Your task to perform on an android device: Go to Yahoo.com Image 0: 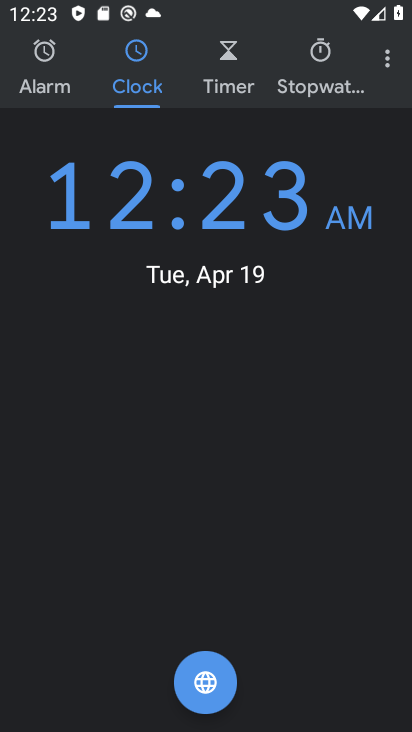
Step 0: press home button
Your task to perform on an android device: Go to Yahoo.com Image 1: 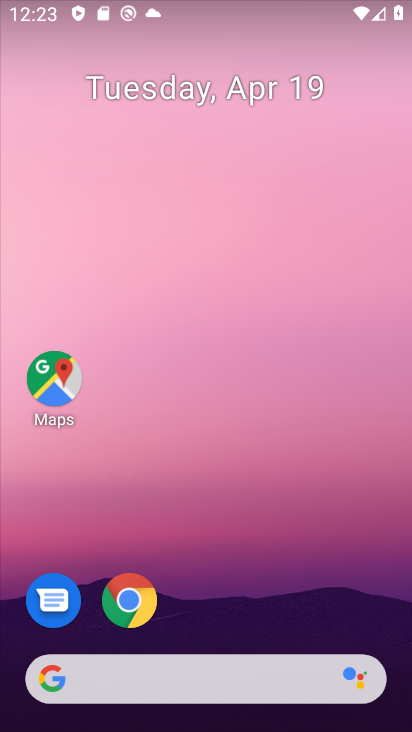
Step 1: click (141, 619)
Your task to perform on an android device: Go to Yahoo.com Image 2: 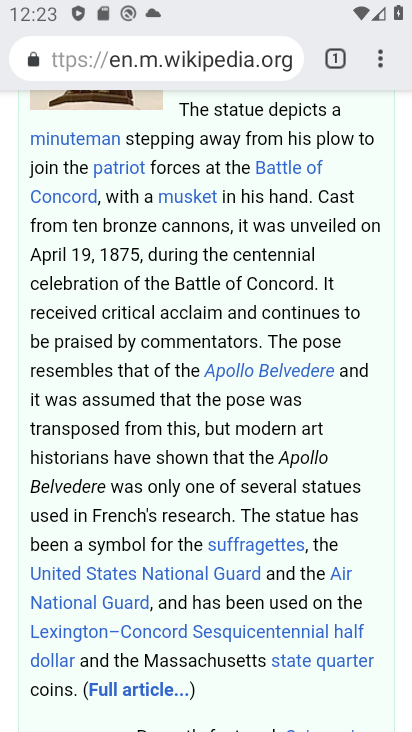
Step 2: click (324, 64)
Your task to perform on an android device: Go to Yahoo.com Image 3: 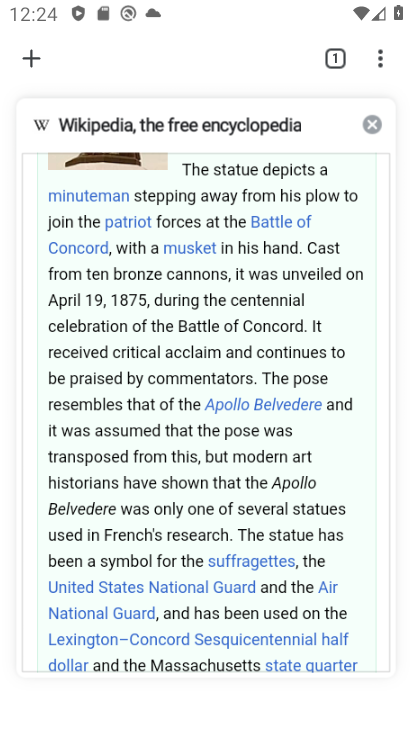
Step 3: click (22, 60)
Your task to perform on an android device: Go to Yahoo.com Image 4: 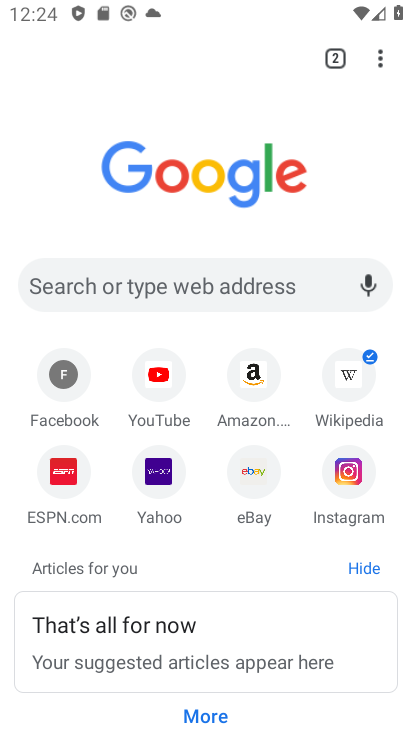
Step 4: click (166, 482)
Your task to perform on an android device: Go to Yahoo.com Image 5: 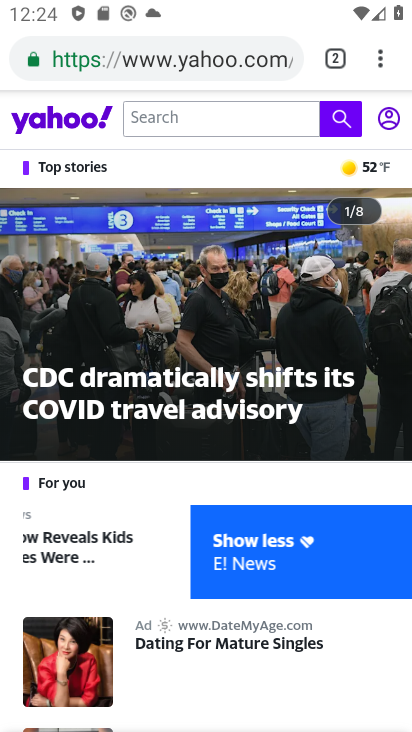
Step 5: task complete